Your task to perform on an android device: toggle notifications settings in the gmail app Image 0: 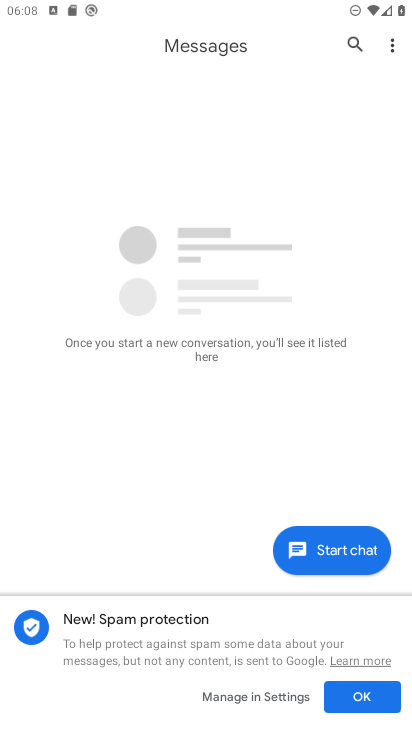
Step 0: press home button
Your task to perform on an android device: toggle notifications settings in the gmail app Image 1: 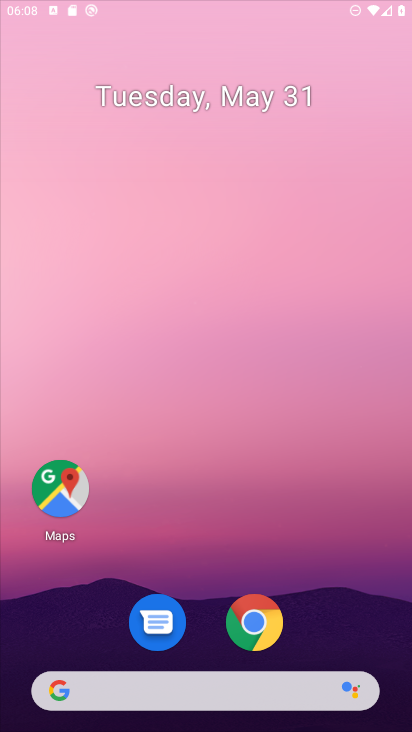
Step 1: drag from (275, 678) to (266, 227)
Your task to perform on an android device: toggle notifications settings in the gmail app Image 2: 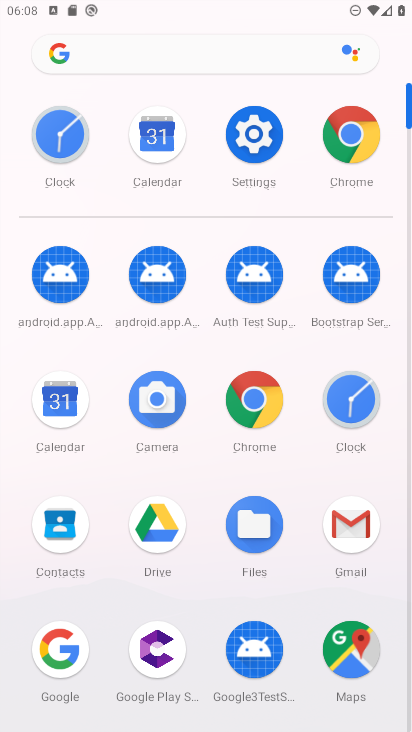
Step 2: click (339, 518)
Your task to perform on an android device: toggle notifications settings in the gmail app Image 3: 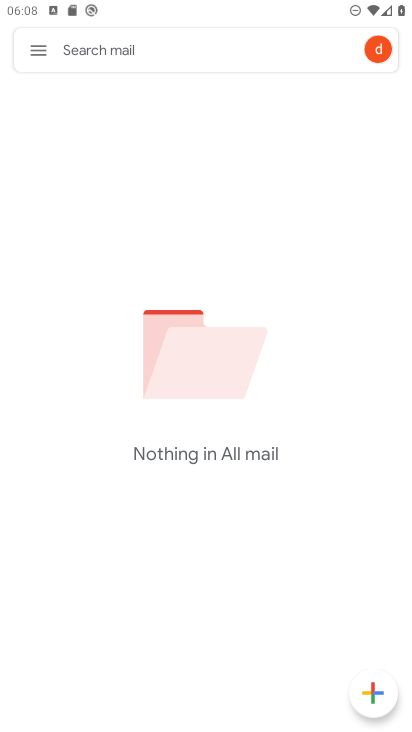
Step 3: click (50, 42)
Your task to perform on an android device: toggle notifications settings in the gmail app Image 4: 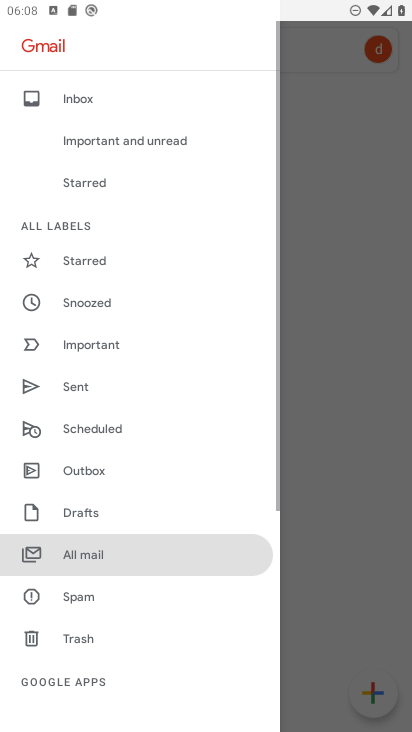
Step 4: drag from (148, 607) to (145, 186)
Your task to perform on an android device: toggle notifications settings in the gmail app Image 5: 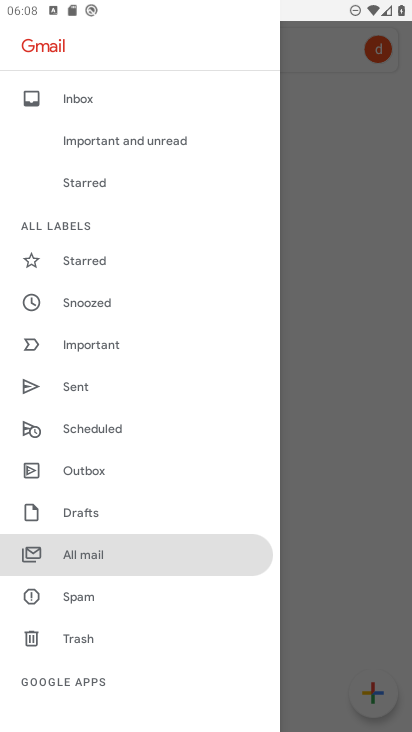
Step 5: drag from (176, 647) to (188, 142)
Your task to perform on an android device: toggle notifications settings in the gmail app Image 6: 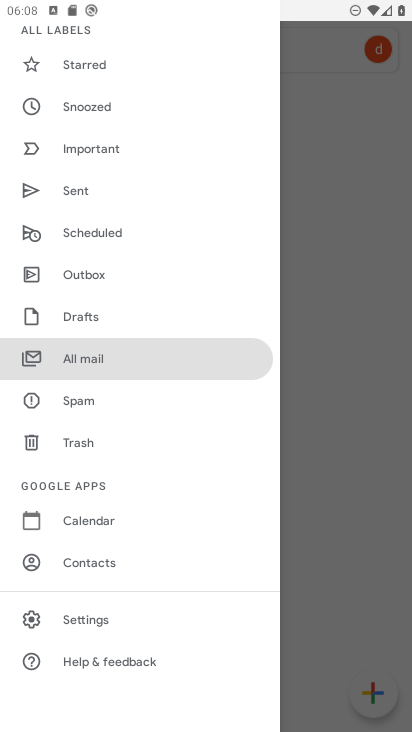
Step 6: click (107, 619)
Your task to perform on an android device: toggle notifications settings in the gmail app Image 7: 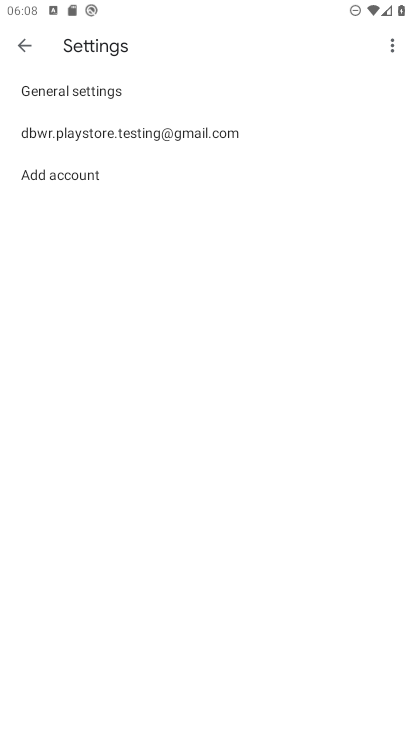
Step 7: click (172, 132)
Your task to perform on an android device: toggle notifications settings in the gmail app Image 8: 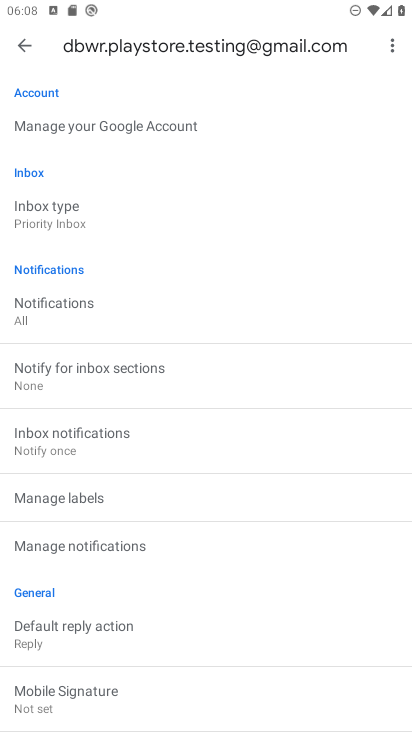
Step 8: click (181, 546)
Your task to perform on an android device: toggle notifications settings in the gmail app Image 9: 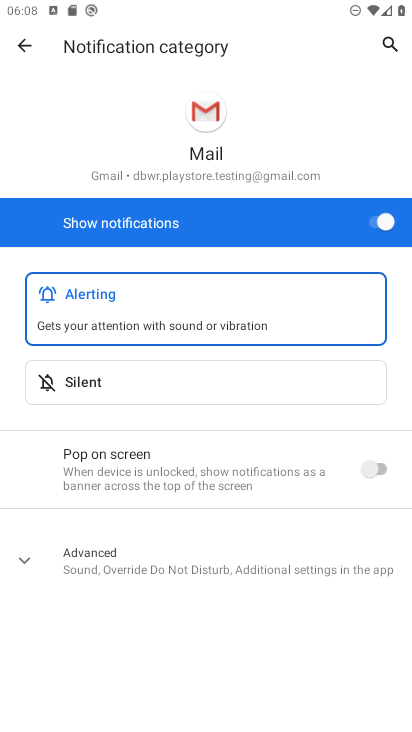
Step 9: click (377, 222)
Your task to perform on an android device: toggle notifications settings in the gmail app Image 10: 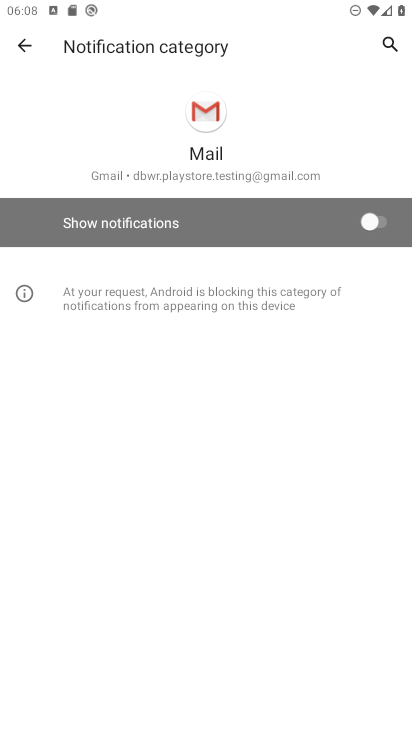
Step 10: task complete